Your task to perform on an android device: change the clock display to analog Image 0: 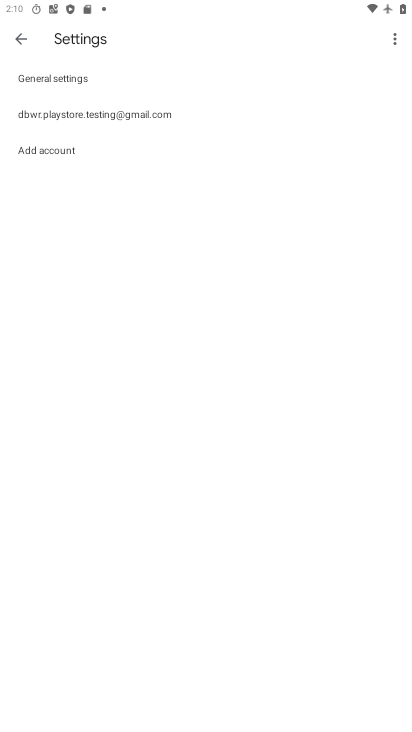
Step 0: press home button
Your task to perform on an android device: change the clock display to analog Image 1: 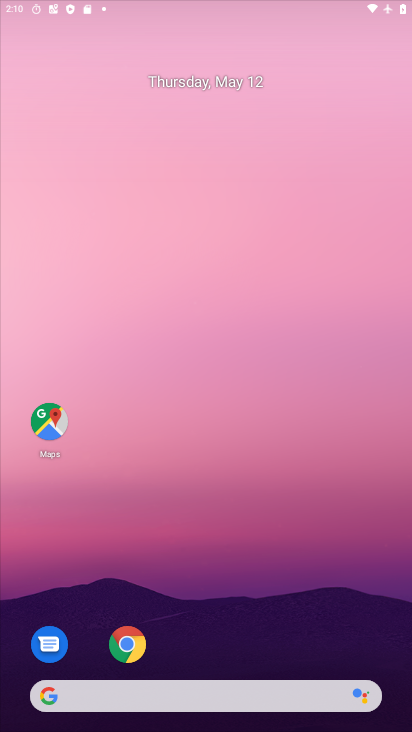
Step 1: drag from (259, 610) to (224, 30)
Your task to perform on an android device: change the clock display to analog Image 2: 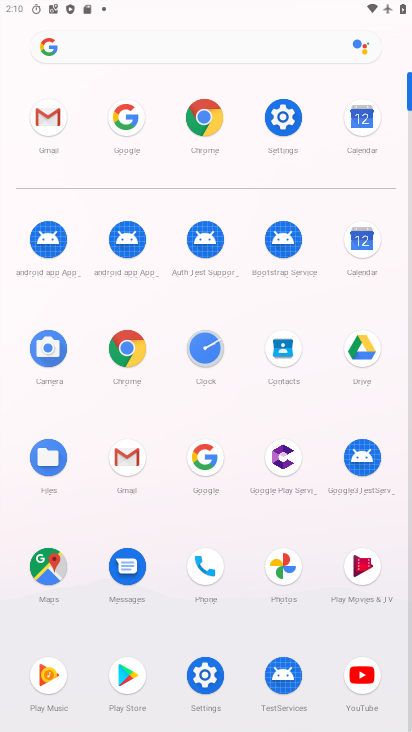
Step 2: click (209, 356)
Your task to perform on an android device: change the clock display to analog Image 3: 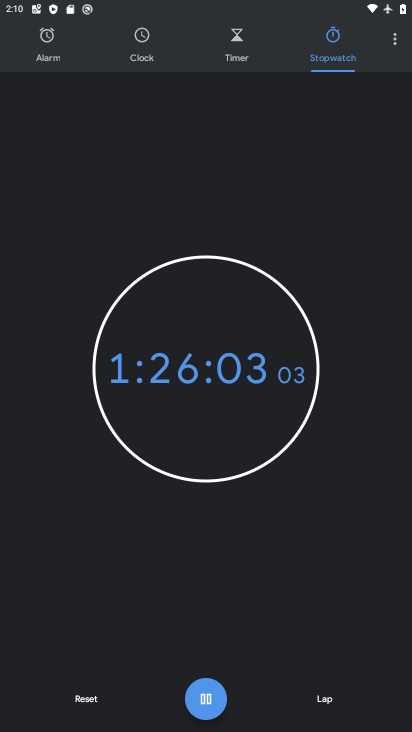
Step 3: click (388, 44)
Your task to perform on an android device: change the clock display to analog Image 4: 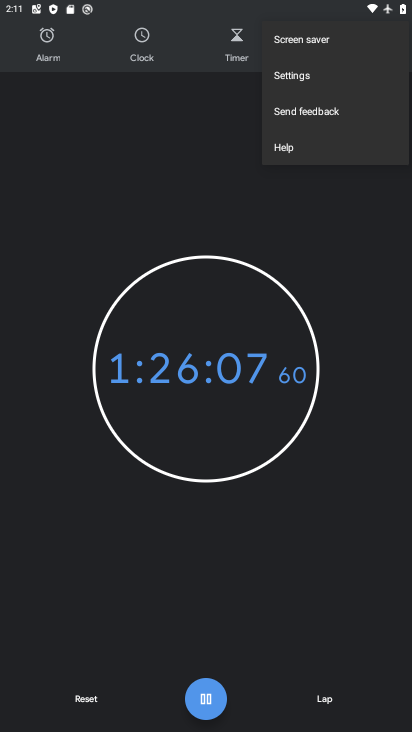
Step 4: click (305, 76)
Your task to perform on an android device: change the clock display to analog Image 5: 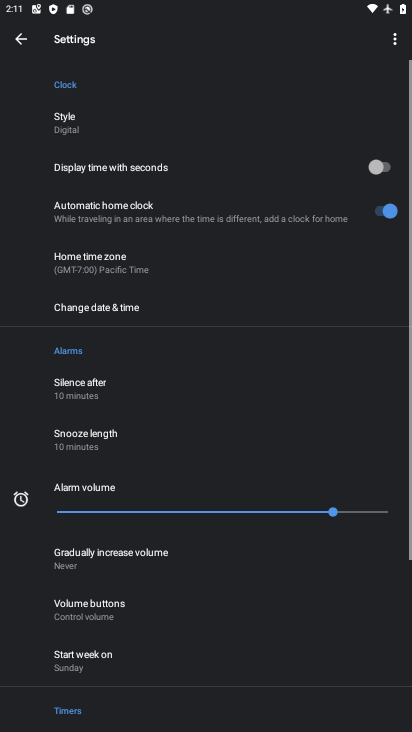
Step 5: click (94, 122)
Your task to perform on an android device: change the clock display to analog Image 6: 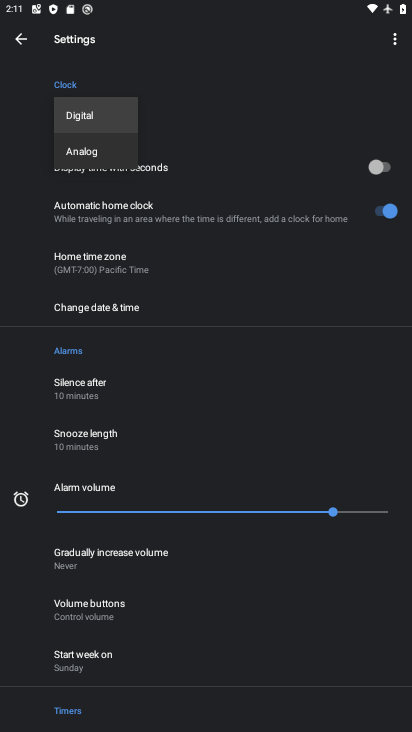
Step 6: click (115, 145)
Your task to perform on an android device: change the clock display to analog Image 7: 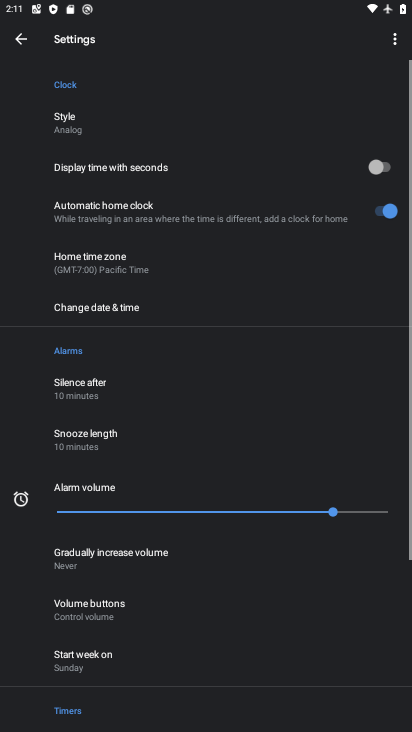
Step 7: task complete